Your task to perform on an android device: open a bookmark in the chrome app Image 0: 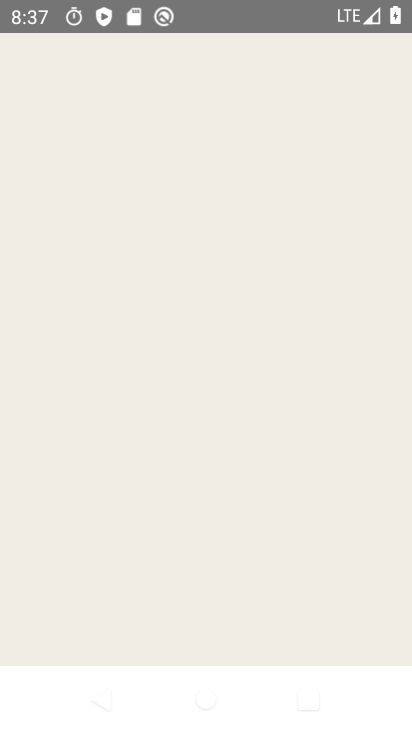
Step 0: press home button
Your task to perform on an android device: open a bookmark in the chrome app Image 1: 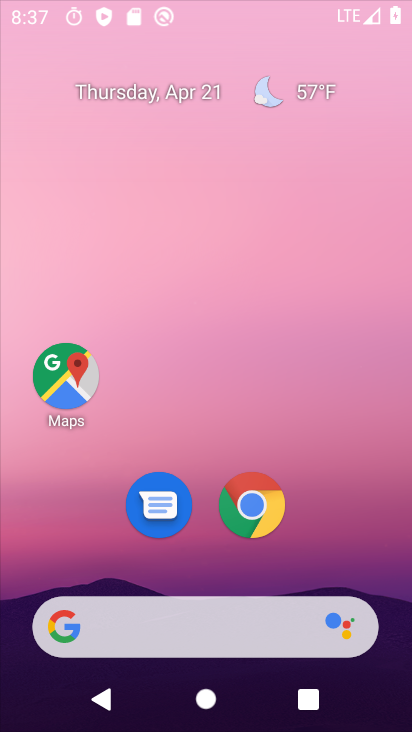
Step 1: click (264, 516)
Your task to perform on an android device: open a bookmark in the chrome app Image 2: 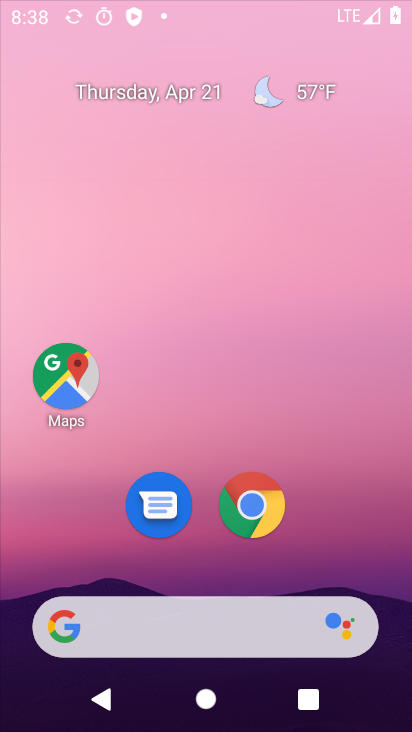
Step 2: click (247, 508)
Your task to perform on an android device: open a bookmark in the chrome app Image 3: 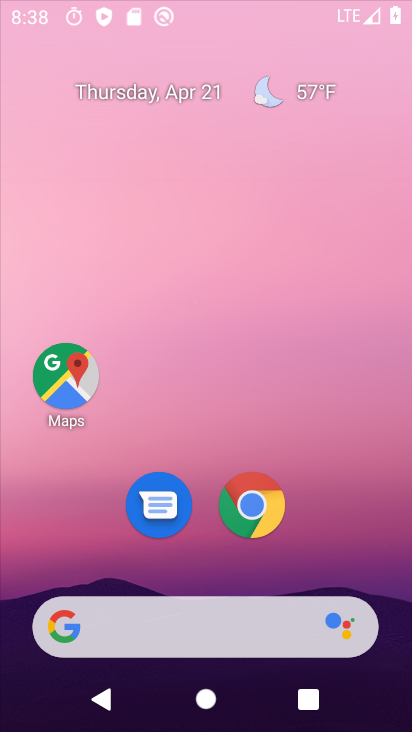
Step 3: click (247, 508)
Your task to perform on an android device: open a bookmark in the chrome app Image 4: 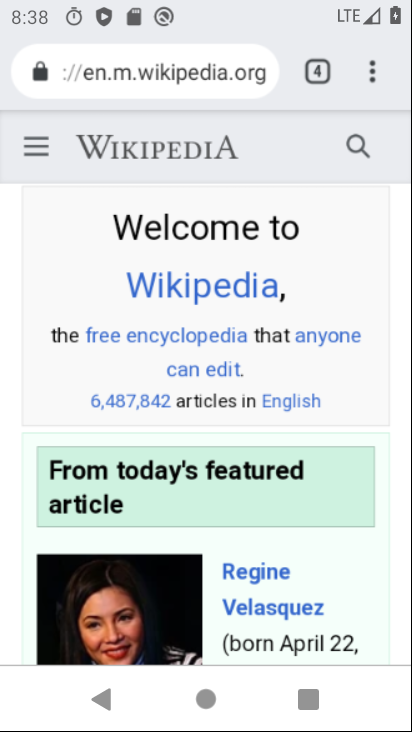
Step 4: task complete